Your task to perform on an android device: Go to ESPN.com Image 0: 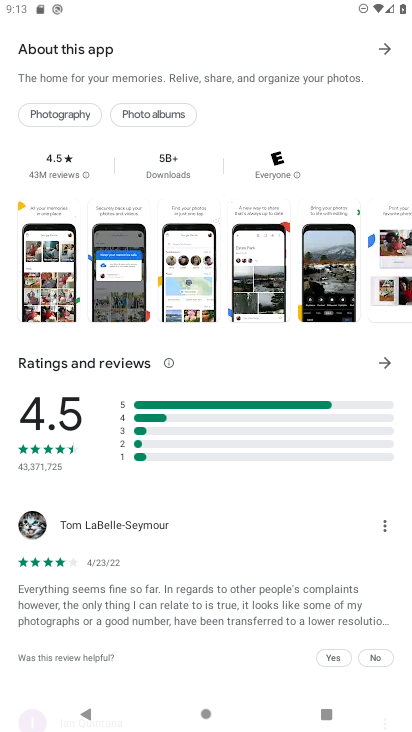
Step 0: press home button
Your task to perform on an android device: Go to ESPN.com Image 1: 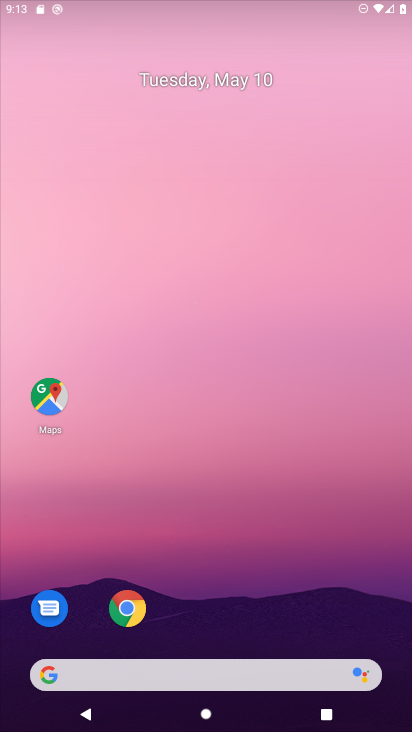
Step 1: drag from (376, 617) to (353, 150)
Your task to perform on an android device: Go to ESPN.com Image 2: 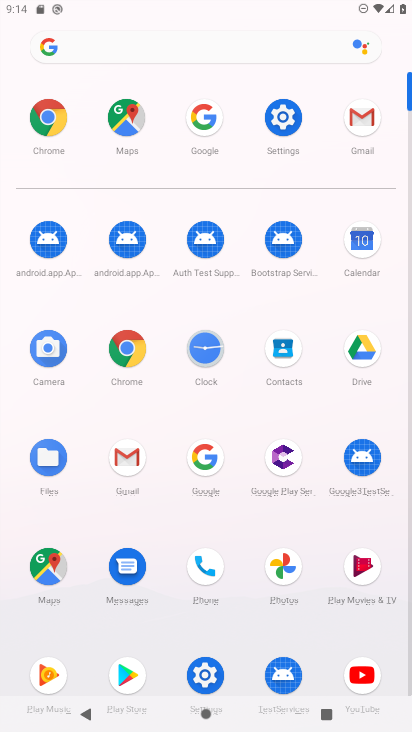
Step 2: click (137, 354)
Your task to perform on an android device: Go to ESPN.com Image 3: 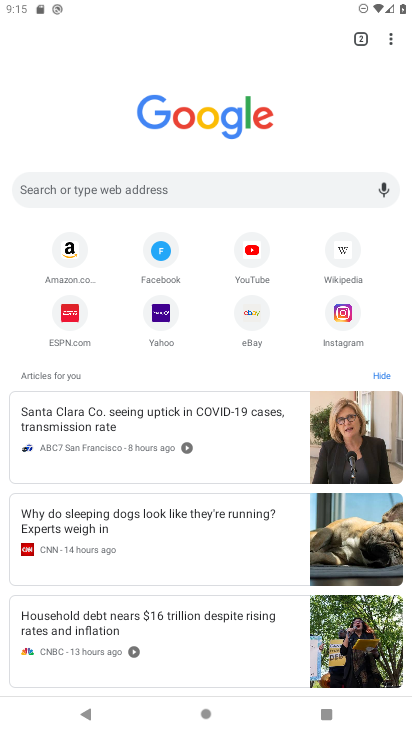
Step 3: click (72, 326)
Your task to perform on an android device: Go to ESPN.com Image 4: 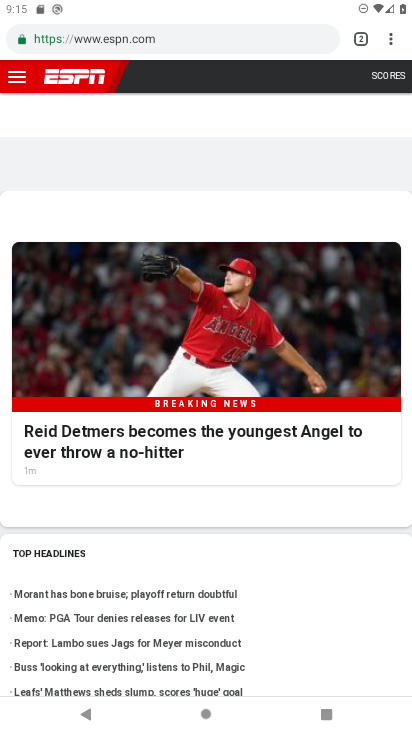
Step 4: task complete